Your task to perform on an android device: turn off picture-in-picture Image 0: 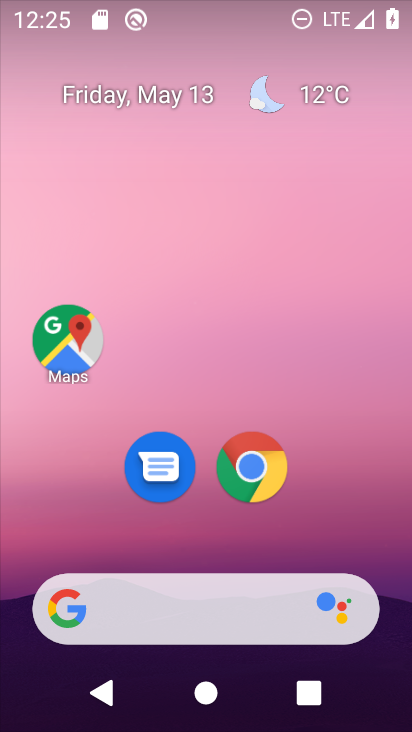
Step 0: drag from (327, 522) to (239, 6)
Your task to perform on an android device: turn off picture-in-picture Image 1: 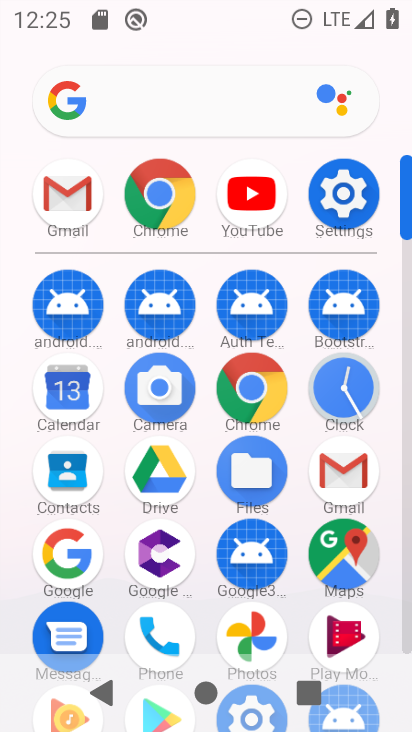
Step 1: click (342, 193)
Your task to perform on an android device: turn off picture-in-picture Image 2: 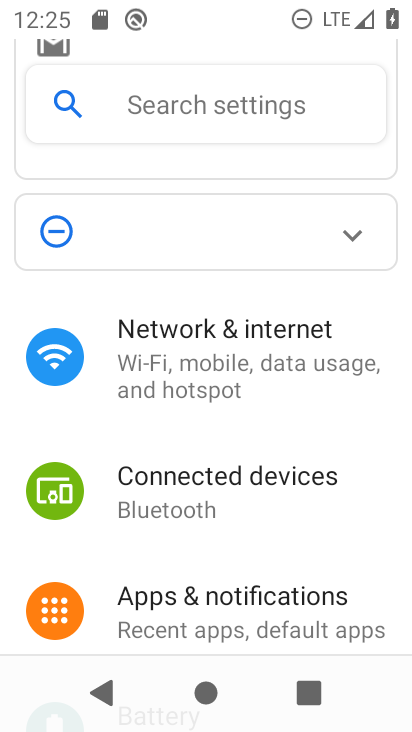
Step 2: drag from (324, 555) to (304, 207)
Your task to perform on an android device: turn off picture-in-picture Image 3: 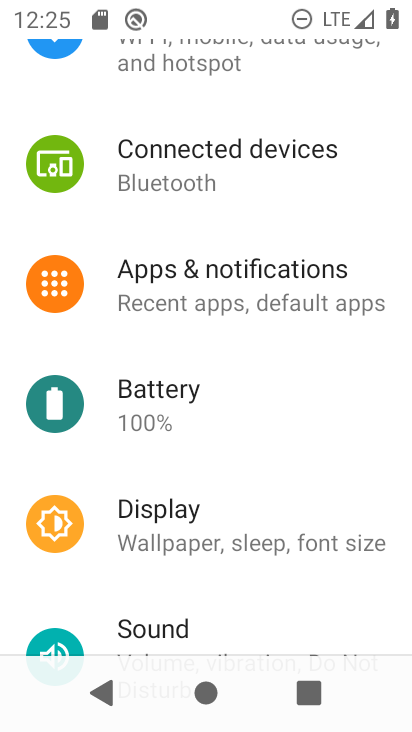
Step 3: drag from (258, 560) to (248, 176)
Your task to perform on an android device: turn off picture-in-picture Image 4: 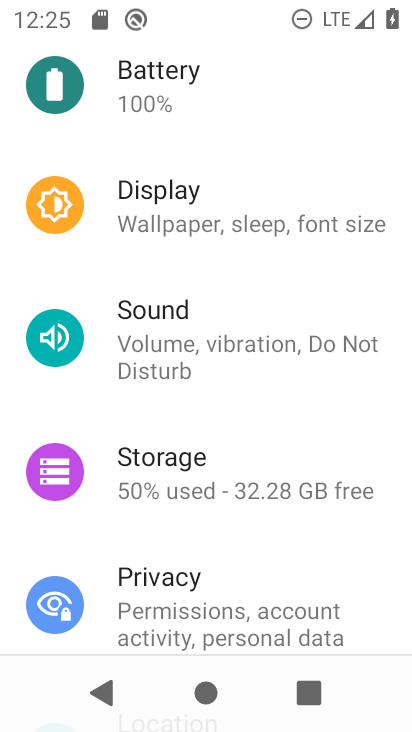
Step 4: drag from (249, 548) to (272, 150)
Your task to perform on an android device: turn off picture-in-picture Image 5: 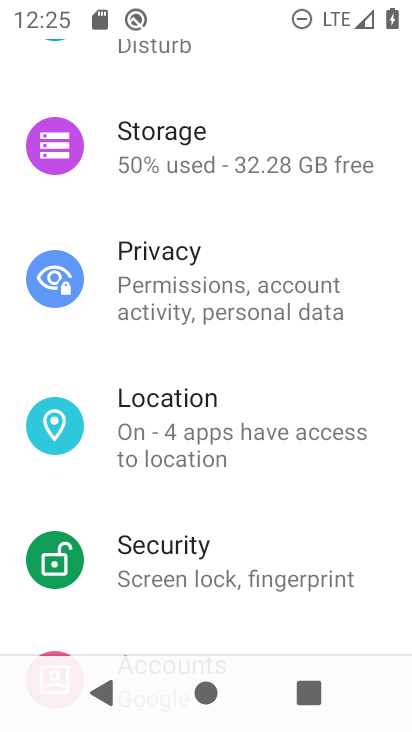
Step 5: drag from (301, 535) to (298, 177)
Your task to perform on an android device: turn off picture-in-picture Image 6: 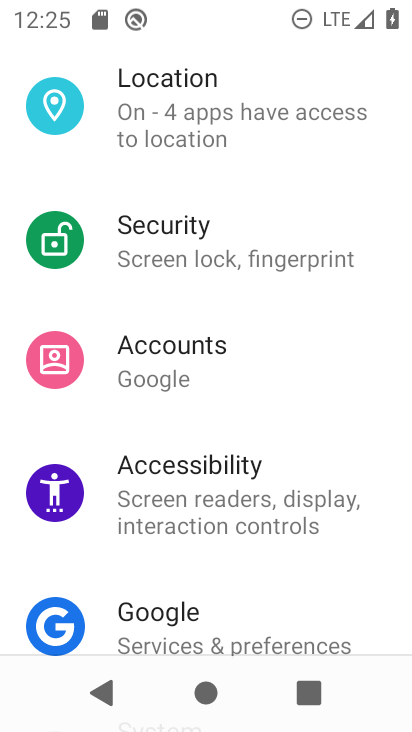
Step 6: drag from (279, 532) to (282, 176)
Your task to perform on an android device: turn off picture-in-picture Image 7: 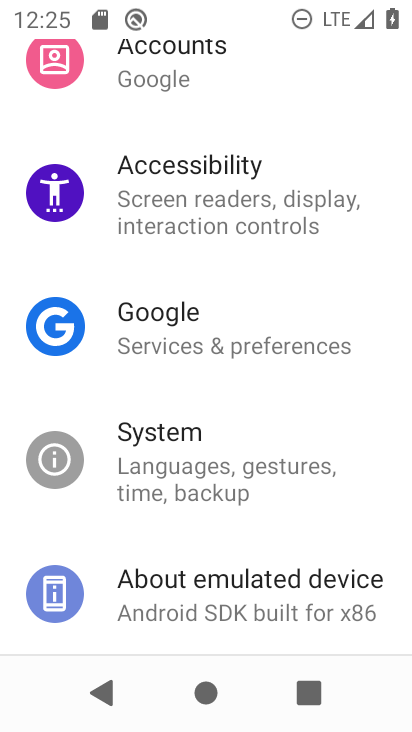
Step 7: drag from (236, 134) to (263, 532)
Your task to perform on an android device: turn off picture-in-picture Image 8: 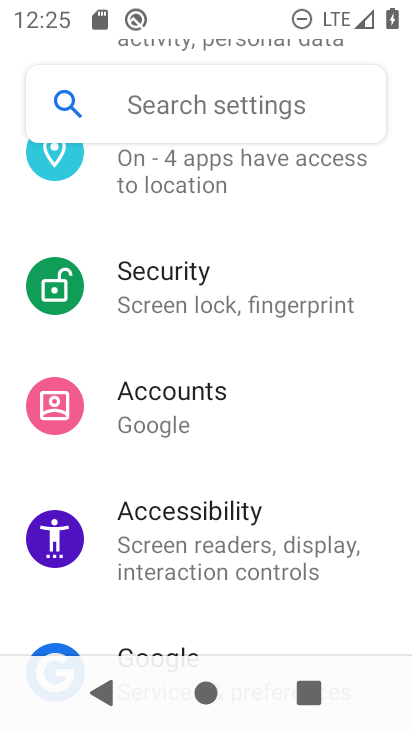
Step 8: drag from (283, 267) to (271, 567)
Your task to perform on an android device: turn off picture-in-picture Image 9: 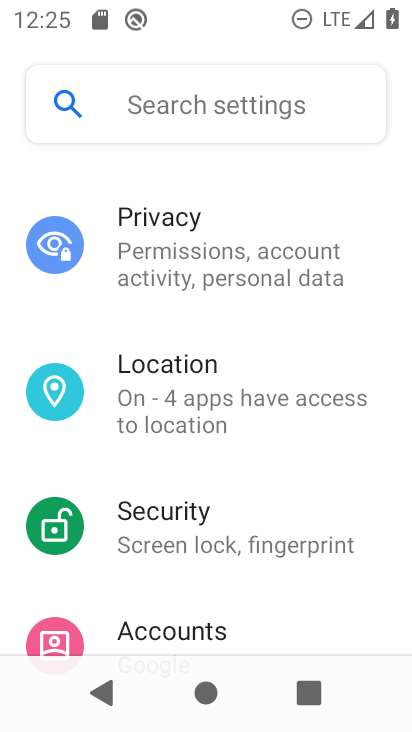
Step 9: drag from (273, 475) to (267, 182)
Your task to perform on an android device: turn off picture-in-picture Image 10: 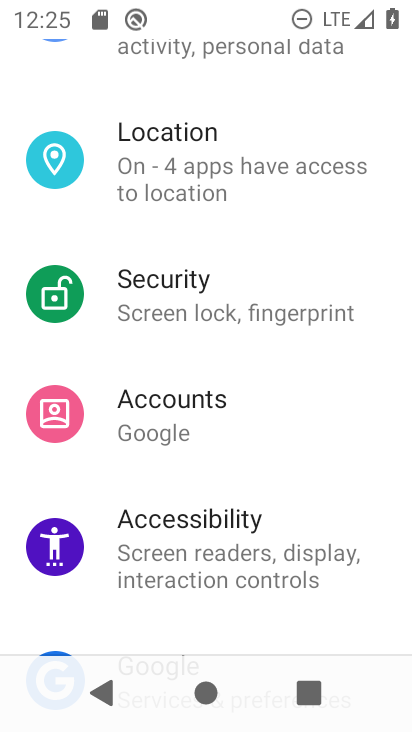
Step 10: drag from (245, 169) to (290, 557)
Your task to perform on an android device: turn off picture-in-picture Image 11: 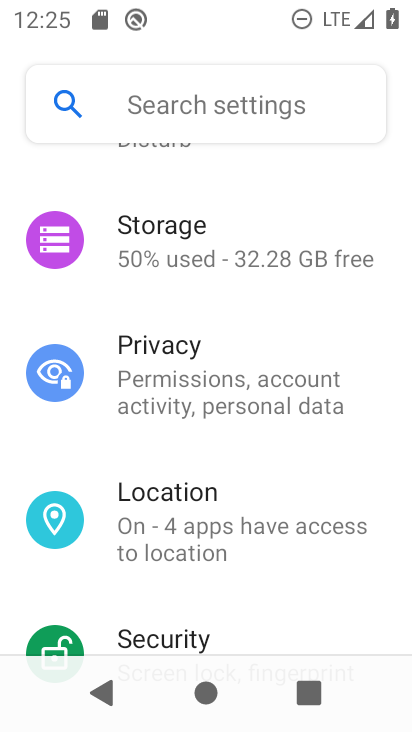
Step 11: drag from (248, 236) to (289, 611)
Your task to perform on an android device: turn off picture-in-picture Image 12: 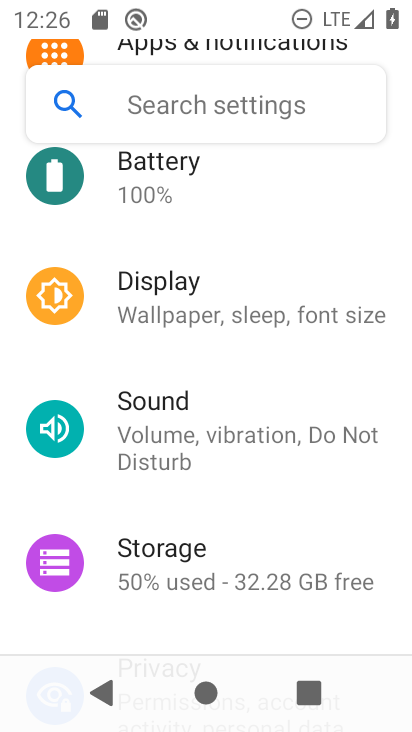
Step 12: drag from (219, 298) to (232, 602)
Your task to perform on an android device: turn off picture-in-picture Image 13: 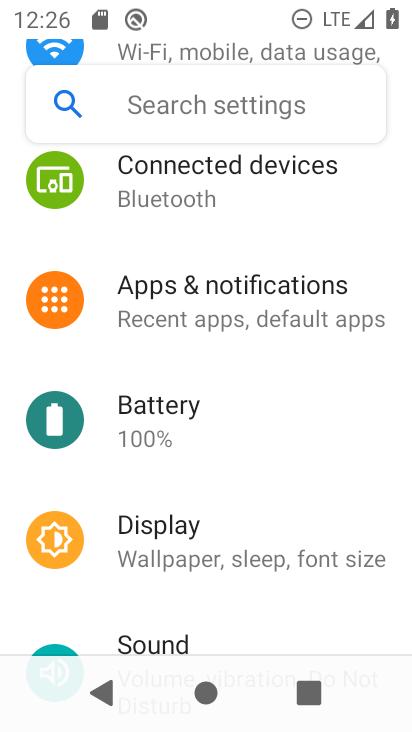
Step 13: click (211, 256)
Your task to perform on an android device: turn off picture-in-picture Image 14: 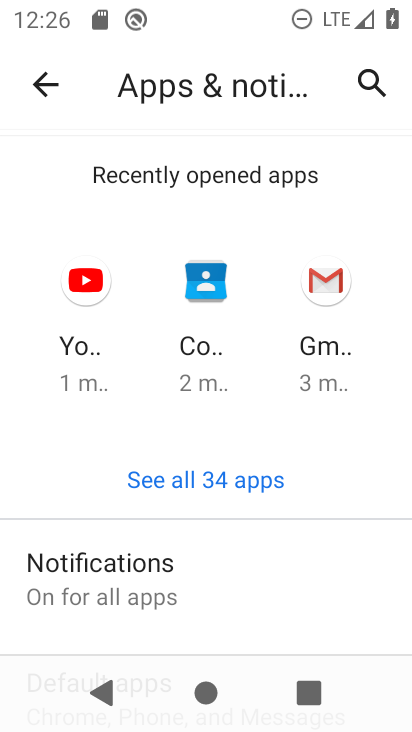
Step 14: drag from (229, 578) to (237, 85)
Your task to perform on an android device: turn off picture-in-picture Image 15: 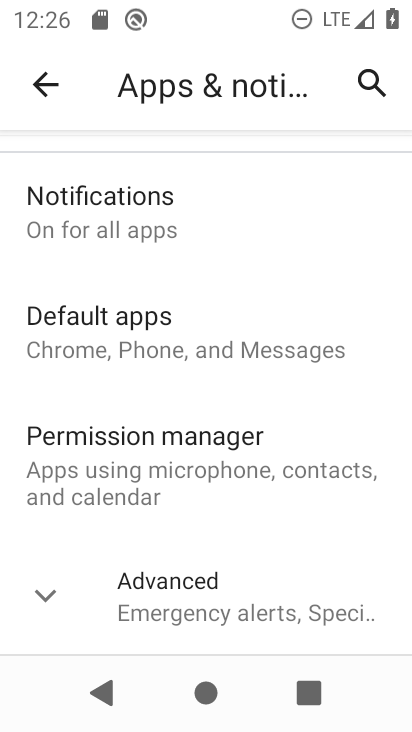
Step 15: click (99, 593)
Your task to perform on an android device: turn off picture-in-picture Image 16: 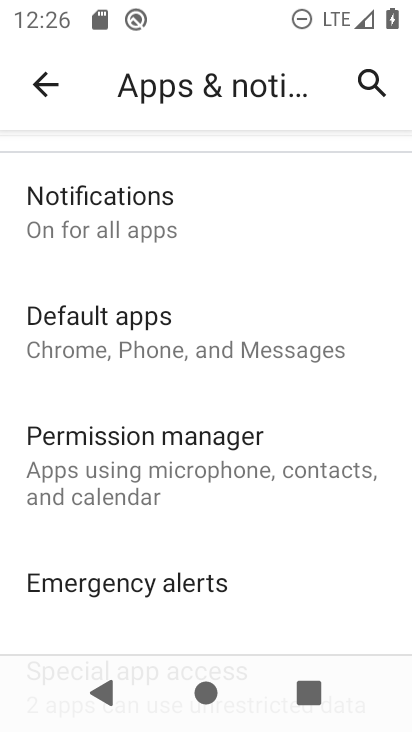
Step 16: drag from (219, 556) to (230, 158)
Your task to perform on an android device: turn off picture-in-picture Image 17: 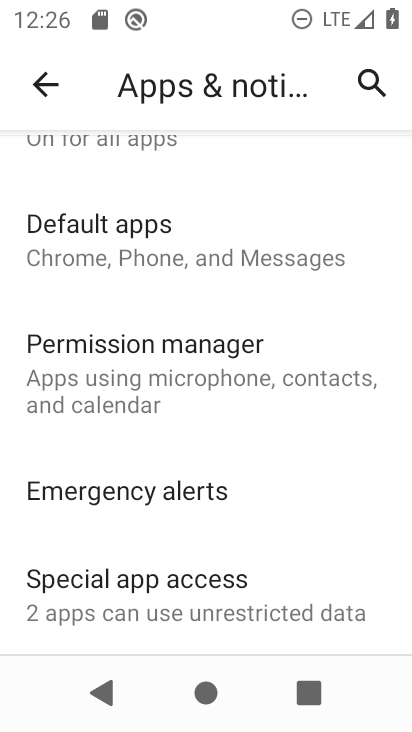
Step 17: click (190, 606)
Your task to perform on an android device: turn off picture-in-picture Image 18: 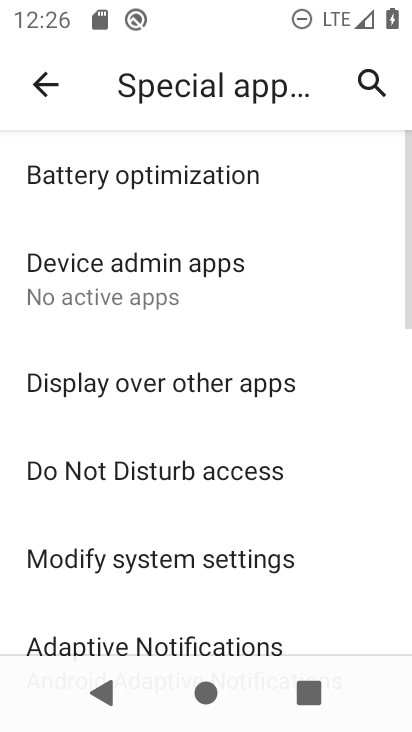
Step 18: drag from (276, 543) to (272, 151)
Your task to perform on an android device: turn off picture-in-picture Image 19: 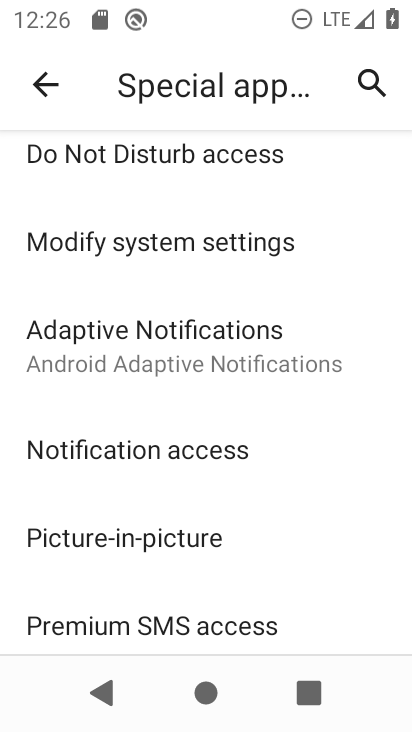
Step 19: click (176, 518)
Your task to perform on an android device: turn off picture-in-picture Image 20: 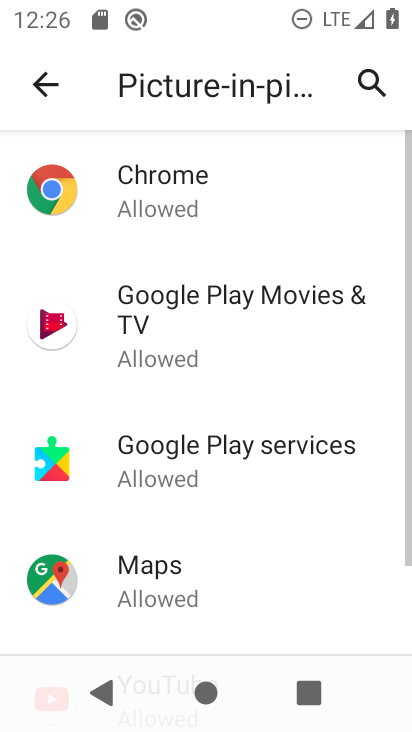
Step 20: click (220, 190)
Your task to perform on an android device: turn off picture-in-picture Image 21: 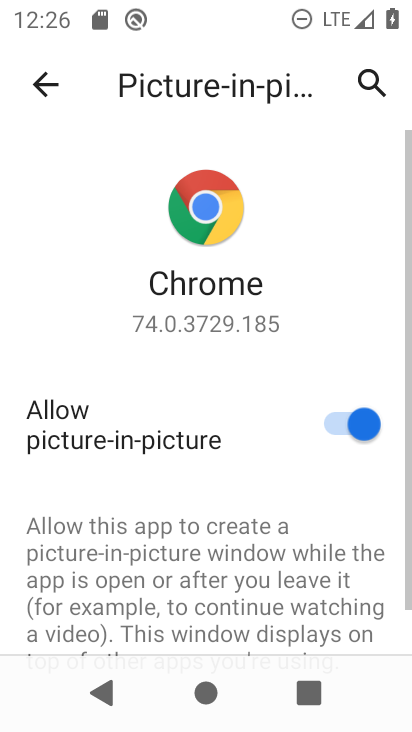
Step 21: click (336, 437)
Your task to perform on an android device: turn off picture-in-picture Image 22: 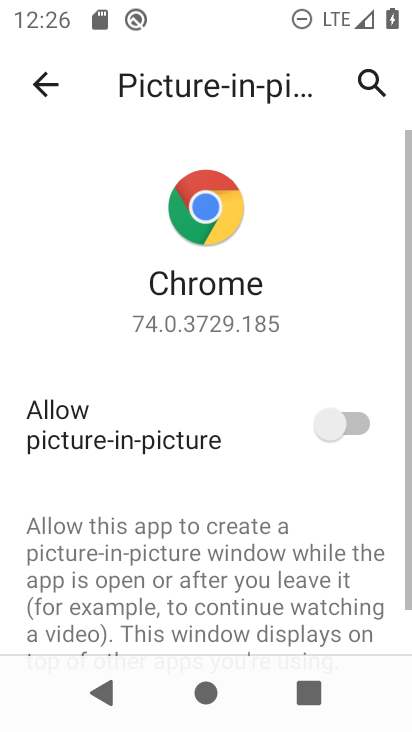
Step 22: click (49, 88)
Your task to perform on an android device: turn off picture-in-picture Image 23: 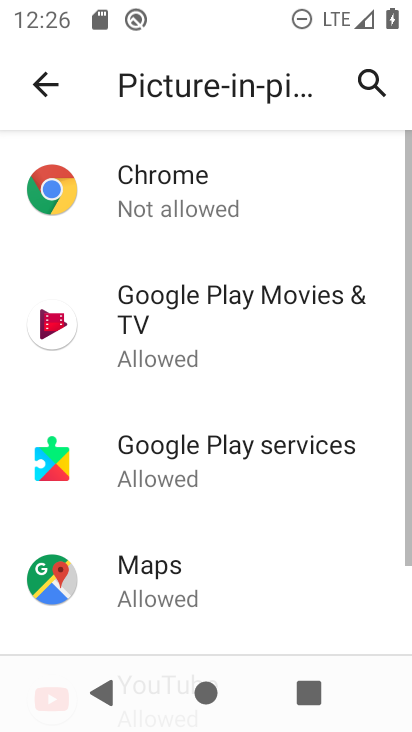
Step 23: click (175, 314)
Your task to perform on an android device: turn off picture-in-picture Image 24: 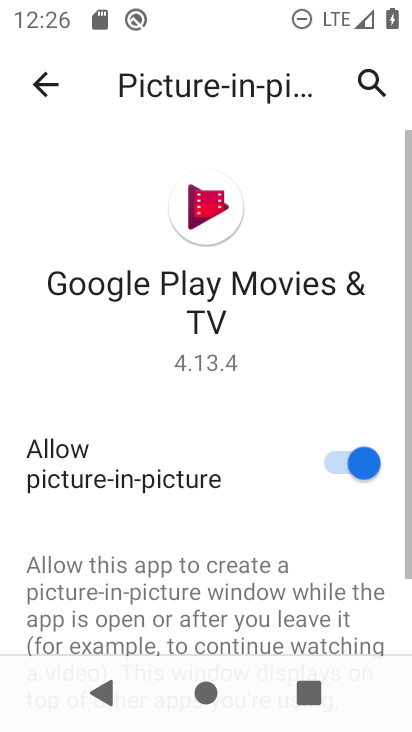
Step 24: click (344, 466)
Your task to perform on an android device: turn off picture-in-picture Image 25: 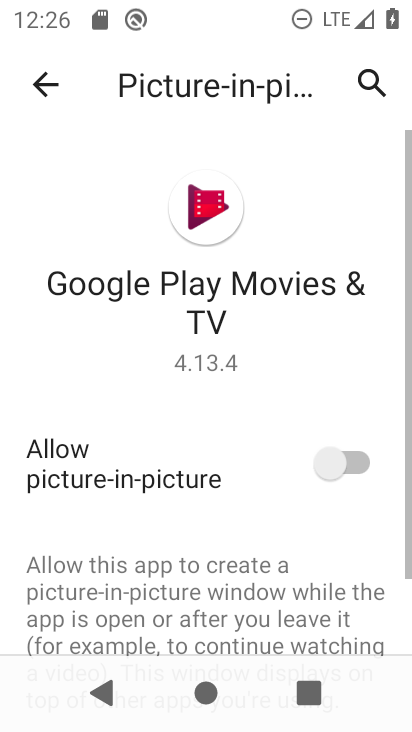
Step 25: click (49, 81)
Your task to perform on an android device: turn off picture-in-picture Image 26: 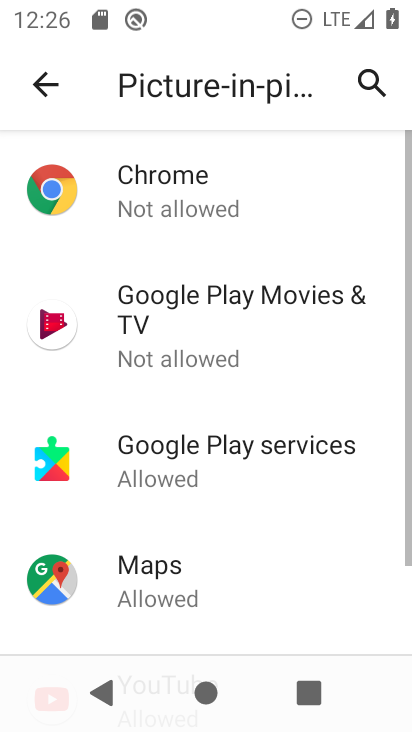
Step 26: click (181, 490)
Your task to perform on an android device: turn off picture-in-picture Image 27: 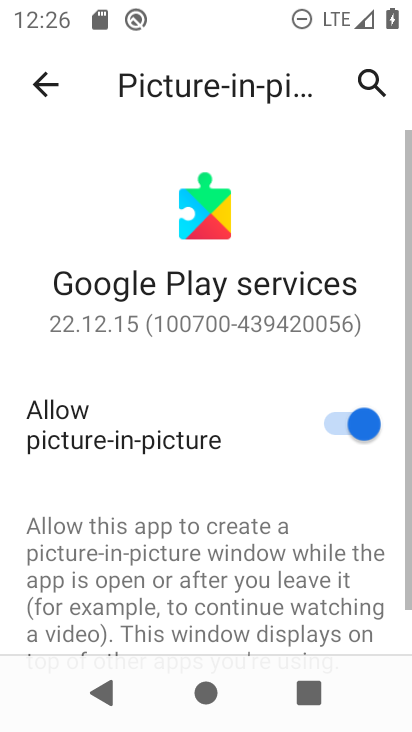
Step 27: click (331, 425)
Your task to perform on an android device: turn off picture-in-picture Image 28: 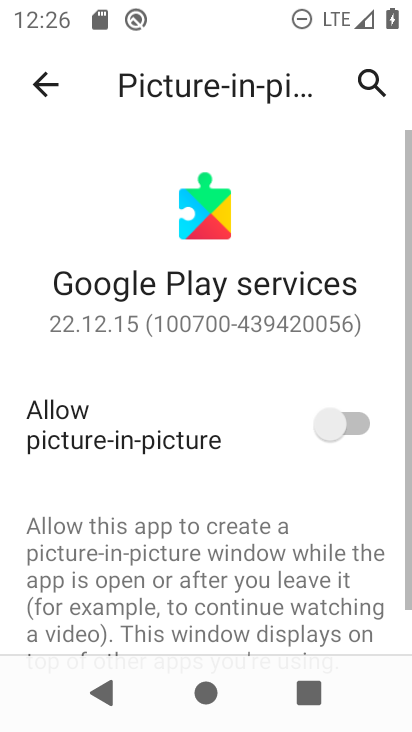
Step 28: click (53, 69)
Your task to perform on an android device: turn off picture-in-picture Image 29: 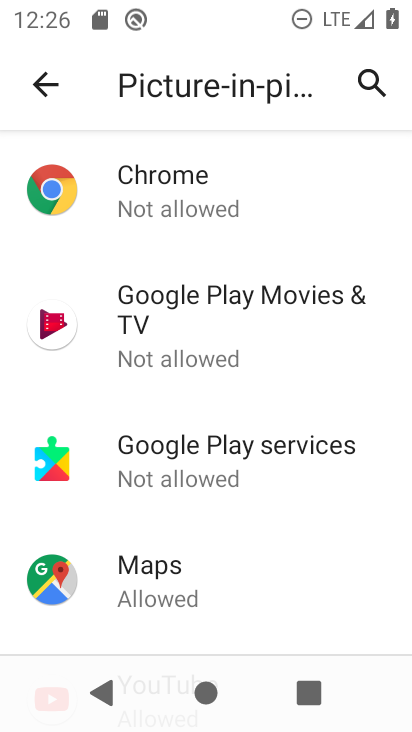
Step 29: click (200, 577)
Your task to perform on an android device: turn off picture-in-picture Image 30: 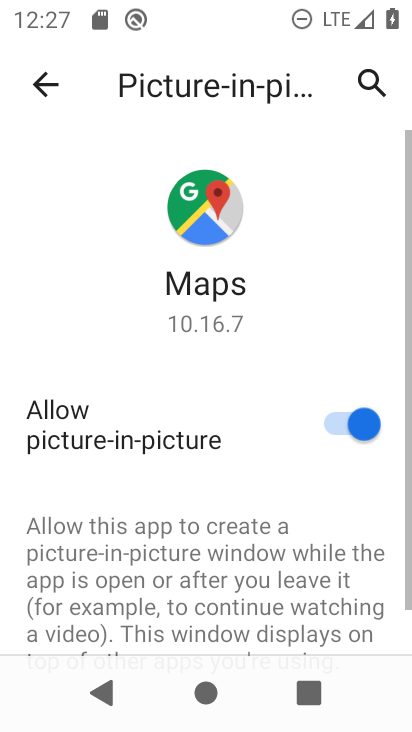
Step 30: click (364, 405)
Your task to perform on an android device: turn off picture-in-picture Image 31: 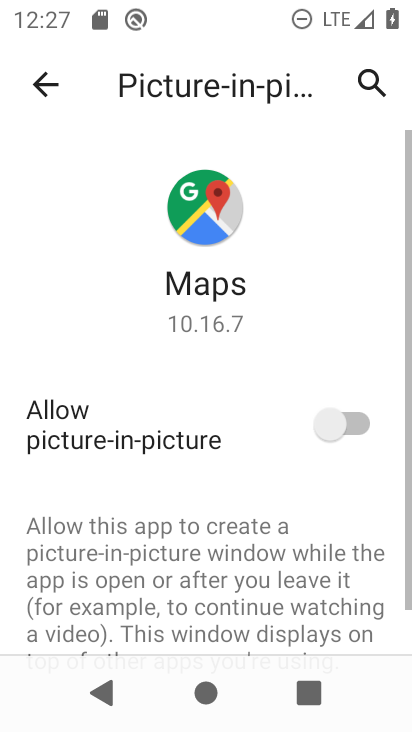
Step 31: click (33, 78)
Your task to perform on an android device: turn off picture-in-picture Image 32: 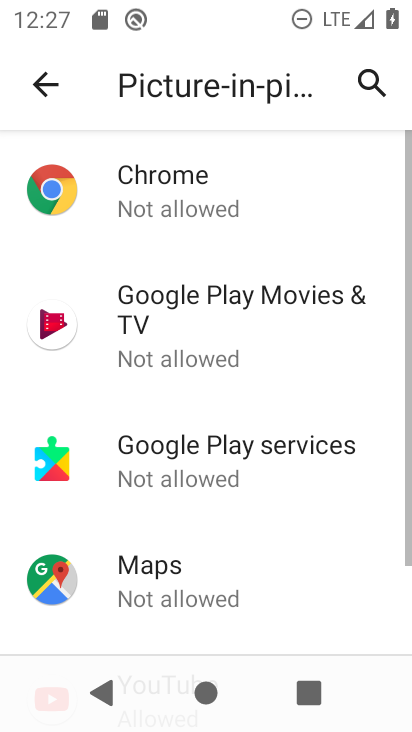
Step 32: drag from (228, 572) to (224, 134)
Your task to perform on an android device: turn off picture-in-picture Image 33: 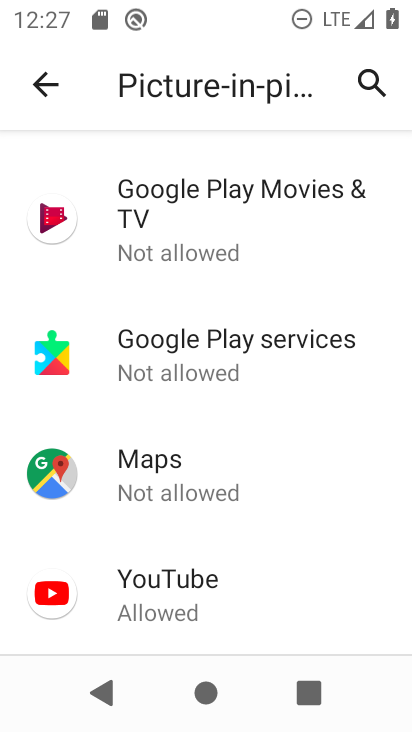
Step 33: click (223, 489)
Your task to perform on an android device: turn off picture-in-picture Image 34: 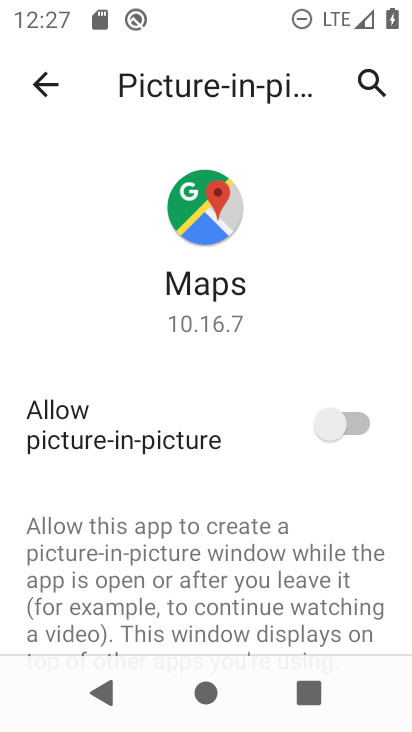
Step 34: click (49, 87)
Your task to perform on an android device: turn off picture-in-picture Image 35: 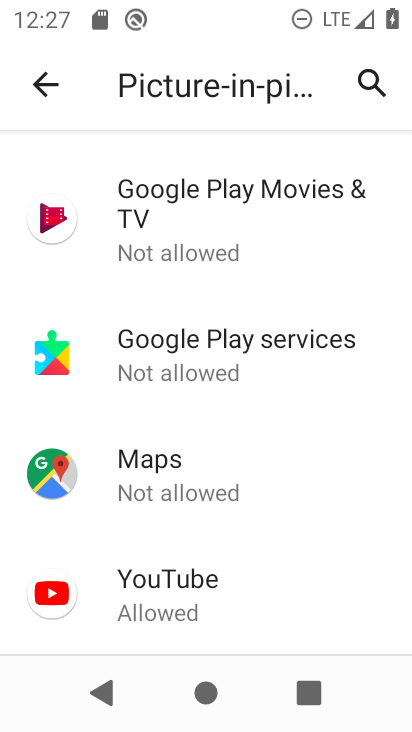
Step 35: click (212, 578)
Your task to perform on an android device: turn off picture-in-picture Image 36: 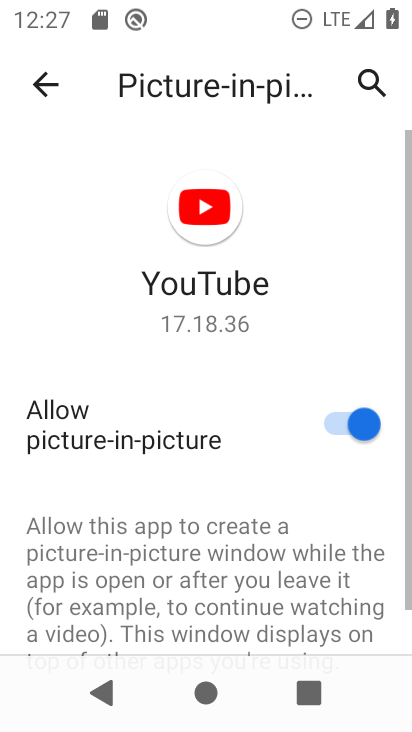
Step 36: click (349, 423)
Your task to perform on an android device: turn off picture-in-picture Image 37: 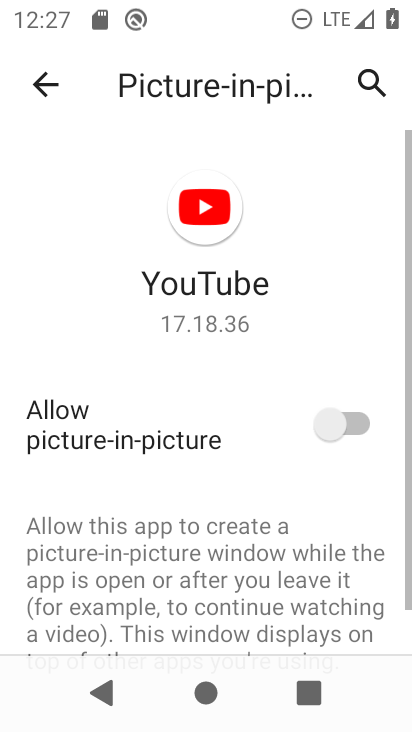
Step 37: click (42, 79)
Your task to perform on an android device: turn off picture-in-picture Image 38: 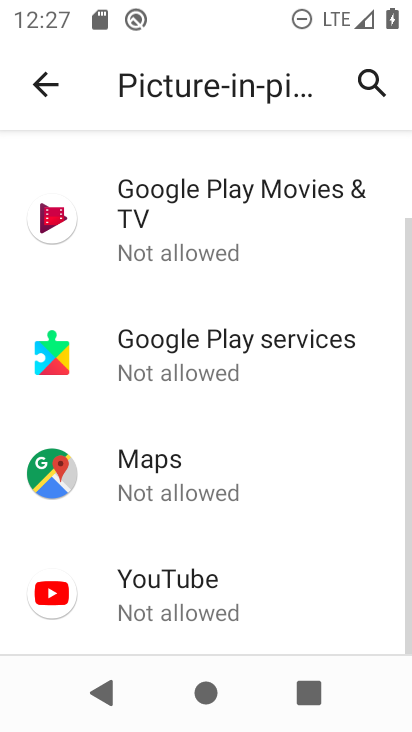
Step 38: task complete